Your task to perform on an android device: Open the calendar app, open the side menu, and click the "Day" option Image 0: 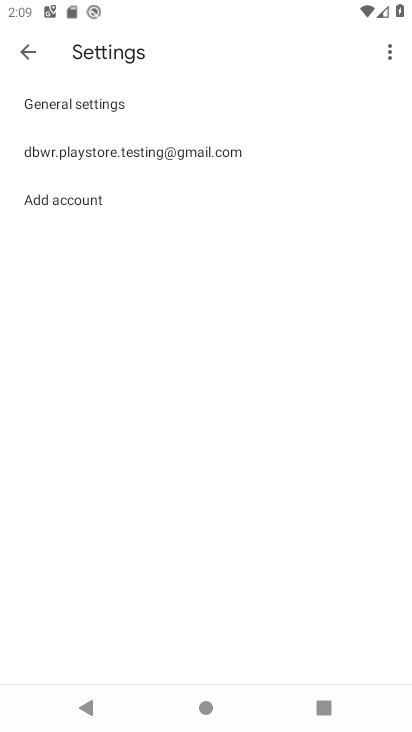
Step 0: press home button
Your task to perform on an android device: Open the calendar app, open the side menu, and click the "Day" option Image 1: 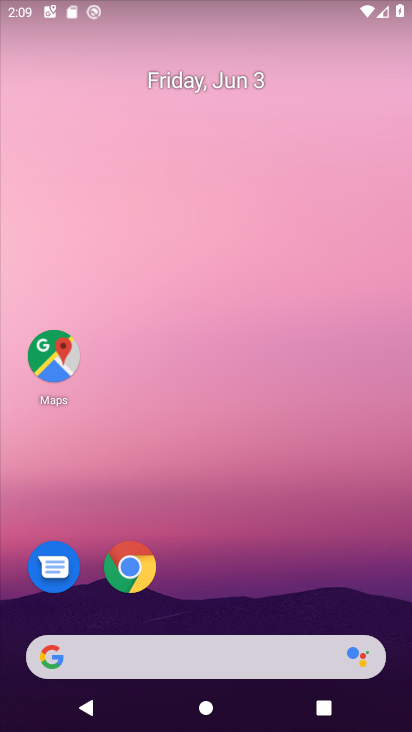
Step 1: drag from (205, 580) to (211, 108)
Your task to perform on an android device: Open the calendar app, open the side menu, and click the "Day" option Image 2: 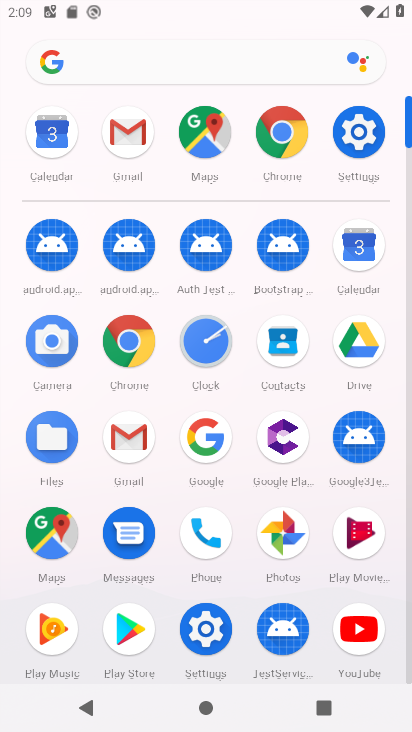
Step 2: click (366, 233)
Your task to perform on an android device: Open the calendar app, open the side menu, and click the "Day" option Image 3: 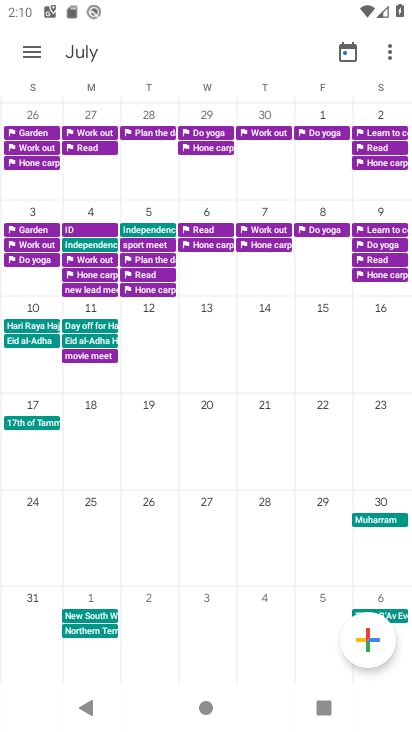
Step 3: click (19, 40)
Your task to perform on an android device: Open the calendar app, open the side menu, and click the "Day" option Image 4: 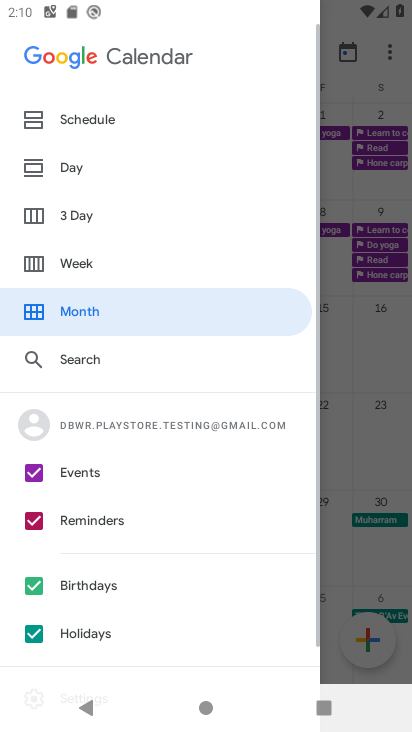
Step 4: click (77, 158)
Your task to perform on an android device: Open the calendar app, open the side menu, and click the "Day" option Image 5: 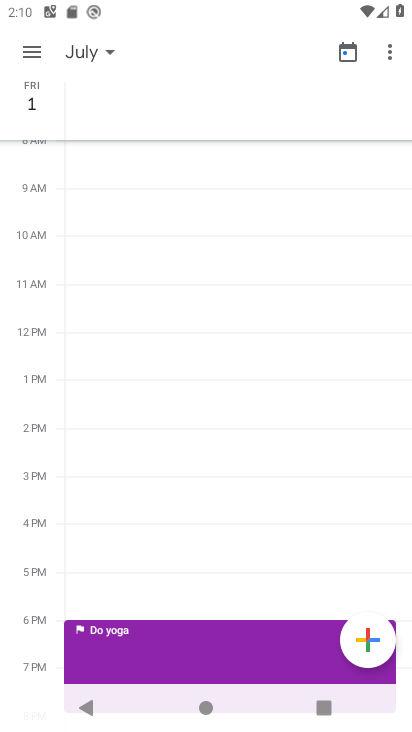
Step 5: drag from (127, 196) to (189, 598)
Your task to perform on an android device: Open the calendar app, open the side menu, and click the "Day" option Image 6: 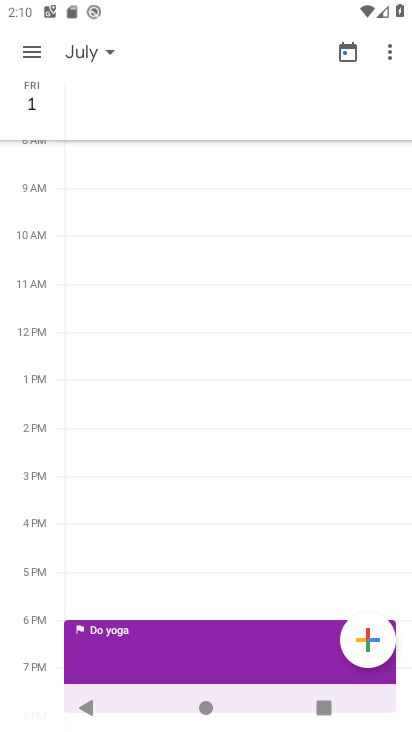
Step 6: click (26, 52)
Your task to perform on an android device: Open the calendar app, open the side menu, and click the "Day" option Image 7: 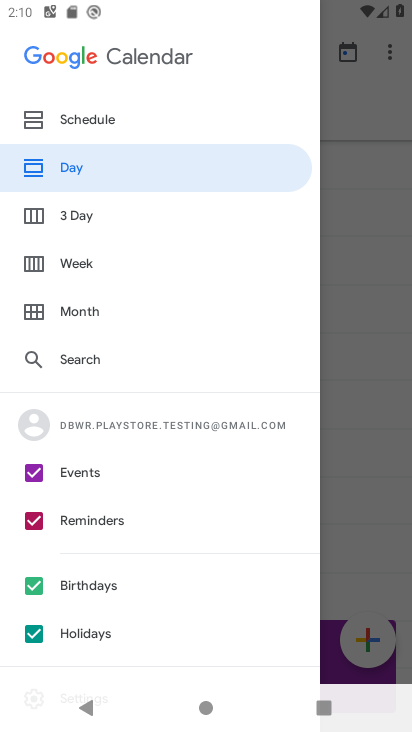
Step 7: click (95, 305)
Your task to perform on an android device: Open the calendar app, open the side menu, and click the "Day" option Image 8: 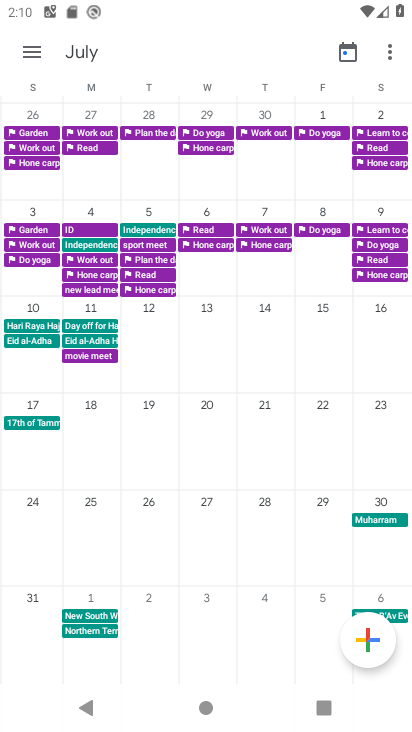
Step 8: drag from (67, 200) to (383, 194)
Your task to perform on an android device: Open the calendar app, open the side menu, and click the "Day" option Image 9: 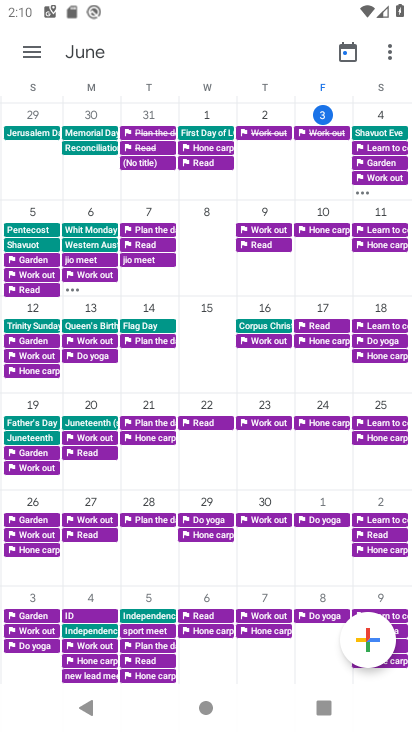
Step 9: click (259, 130)
Your task to perform on an android device: Open the calendar app, open the side menu, and click the "Day" option Image 10: 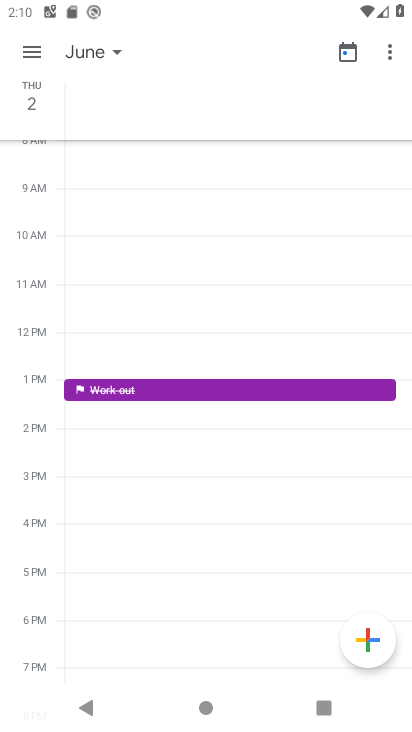
Step 10: click (355, 116)
Your task to perform on an android device: Open the calendar app, open the side menu, and click the "Day" option Image 11: 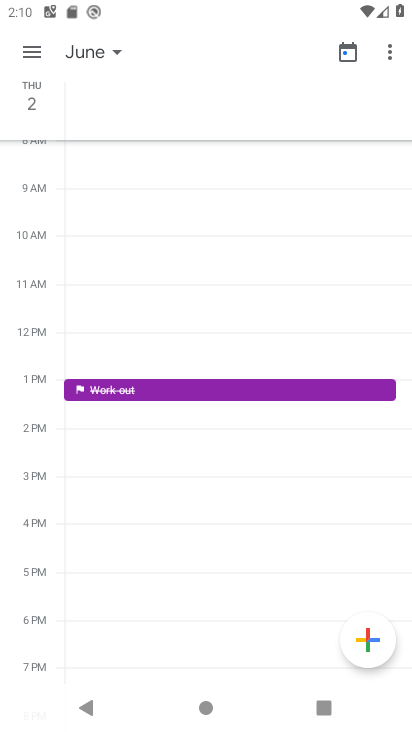
Step 11: drag from (169, 527) to (216, 139)
Your task to perform on an android device: Open the calendar app, open the side menu, and click the "Day" option Image 12: 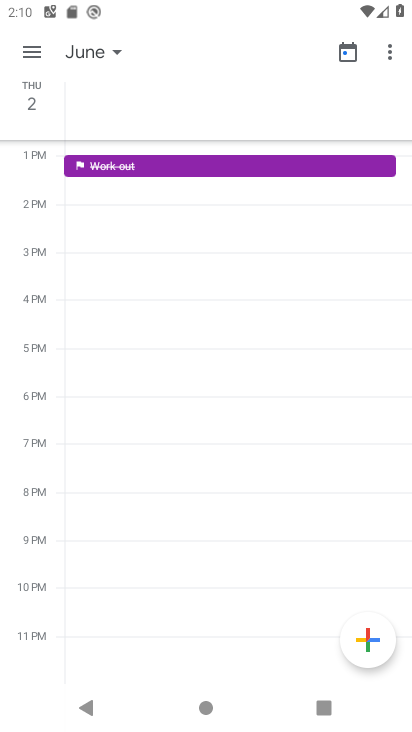
Step 12: drag from (144, 571) to (183, 183)
Your task to perform on an android device: Open the calendar app, open the side menu, and click the "Day" option Image 13: 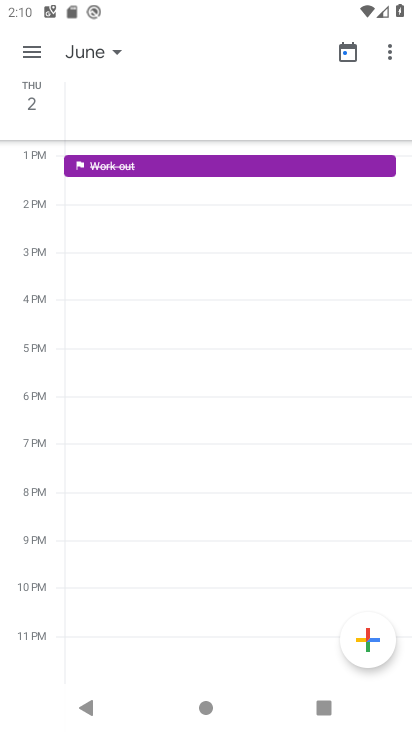
Step 13: drag from (140, 607) to (200, 209)
Your task to perform on an android device: Open the calendar app, open the side menu, and click the "Day" option Image 14: 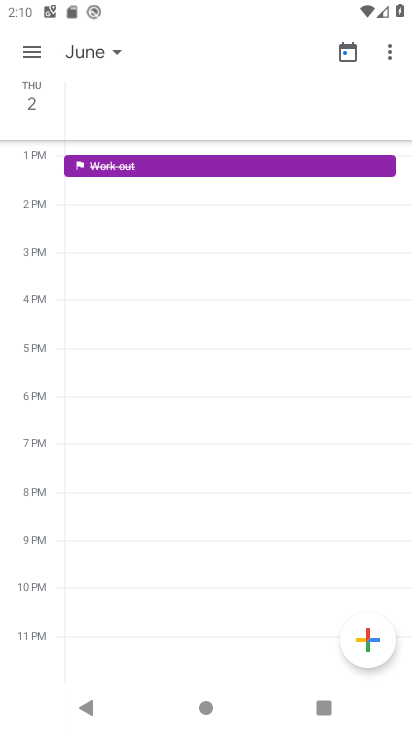
Step 14: click (16, 44)
Your task to perform on an android device: Open the calendar app, open the side menu, and click the "Day" option Image 15: 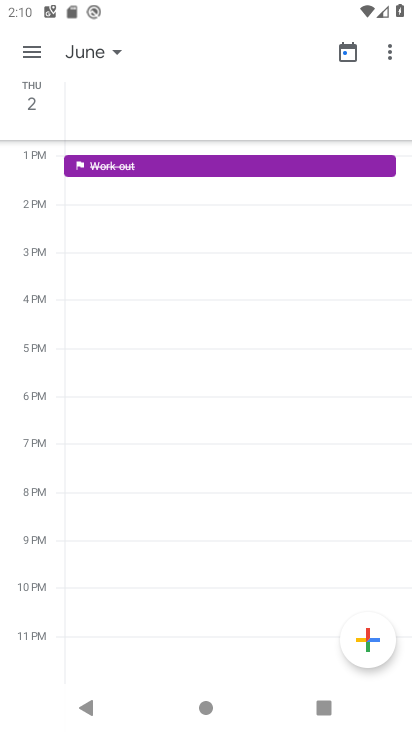
Step 15: click (38, 53)
Your task to perform on an android device: Open the calendar app, open the side menu, and click the "Day" option Image 16: 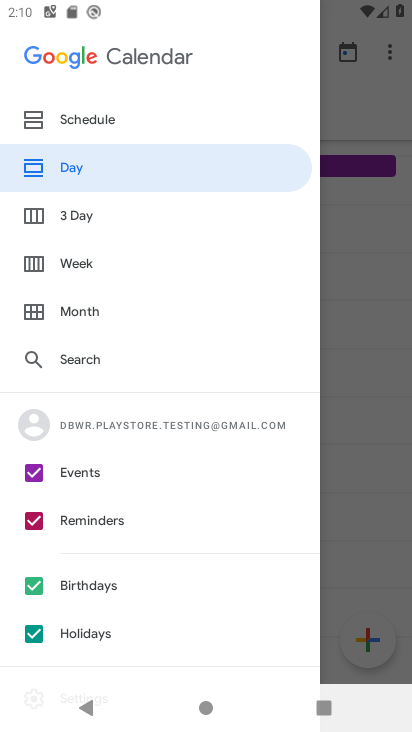
Step 16: click (94, 311)
Your task to perform on an android device: Open the calendar app, open the side menu, and click the "Day" option Image 17: 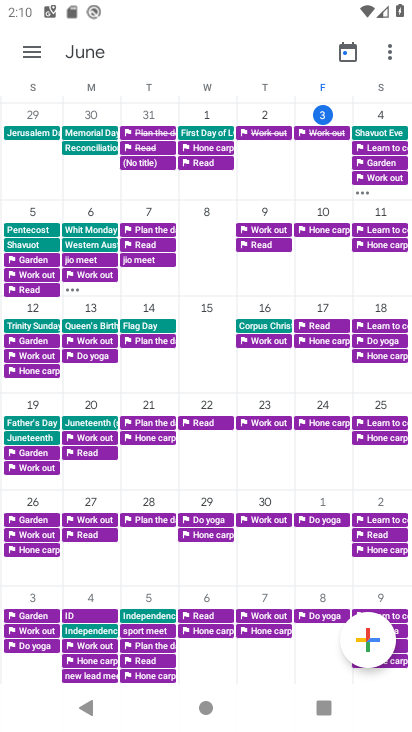
Step 17: click (393, 128)
Your task to perform on an android device: Open the calendar app, open the side menu, and click the "Day" option Image 18: 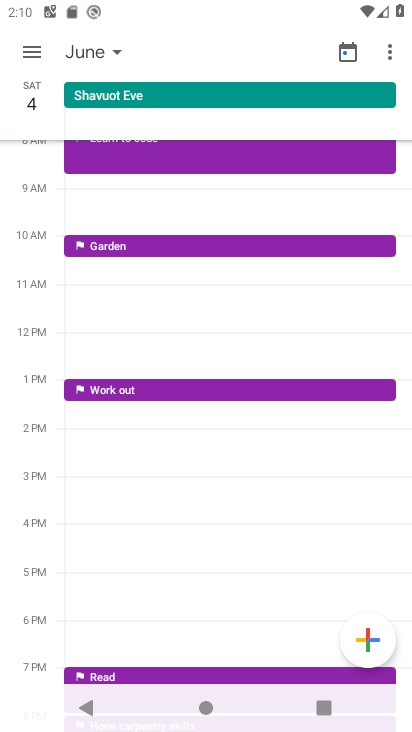
Step 18: task complete